Your task to perform on an android device: add a contact in the contacts app Image 0: 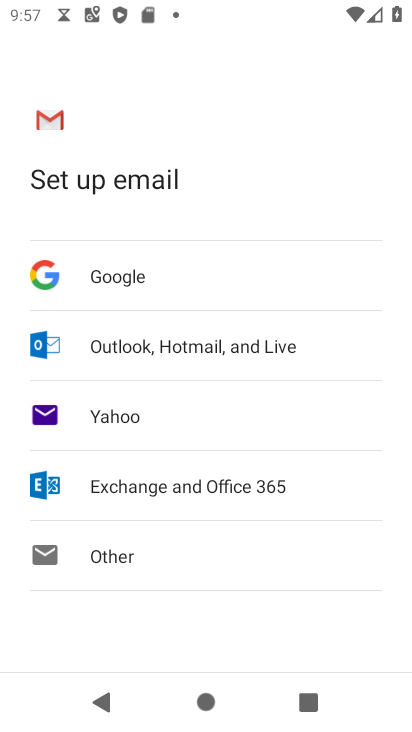
Step 0: press home button
Your task to perform on an android device: add a contact in the contacts app Image 1: 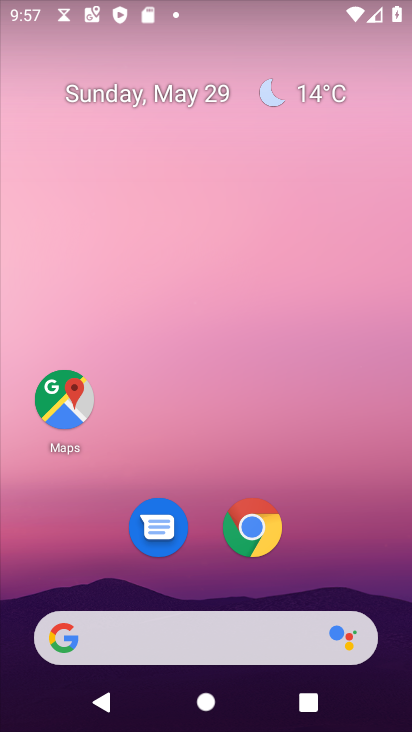
Step 1: drag from (119, 634) to (213, 276)
Your task to perform on an android device: add a contact in the contacts app Image 2: 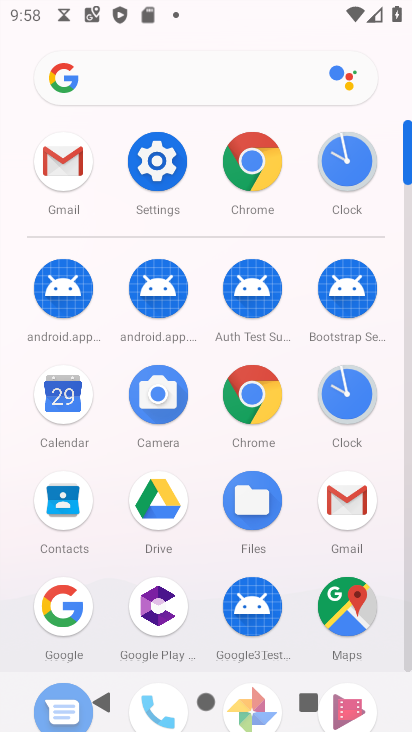
Step 2: click (59, 505)
Your task to perform on an android device: add a contact in the contacts app Image 3: 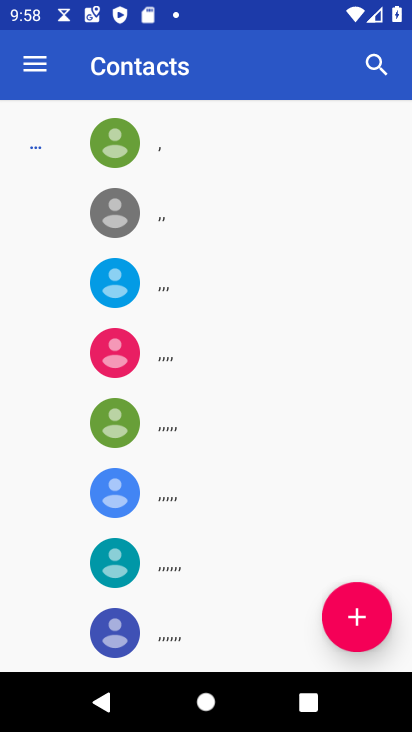
Step 3: click (360, 614)
Your task to perform on an android device: add a contact in the contacts app Image 4: 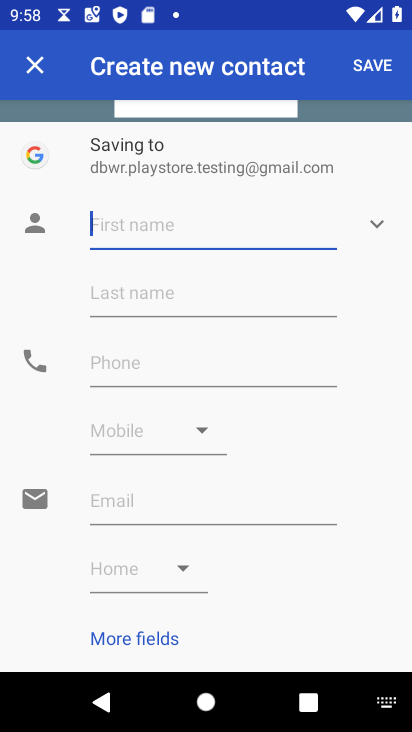
Step 4: click (104, 222)
Your task to perform on an android device: add a contact in the contacts app Image 5: 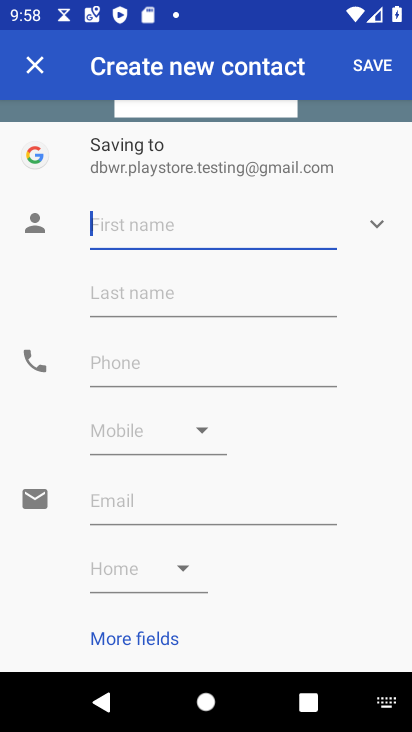
Step 5: type "strythghgjg"
Your task to perform on an android device: add a contact in the contacts app Image 6: 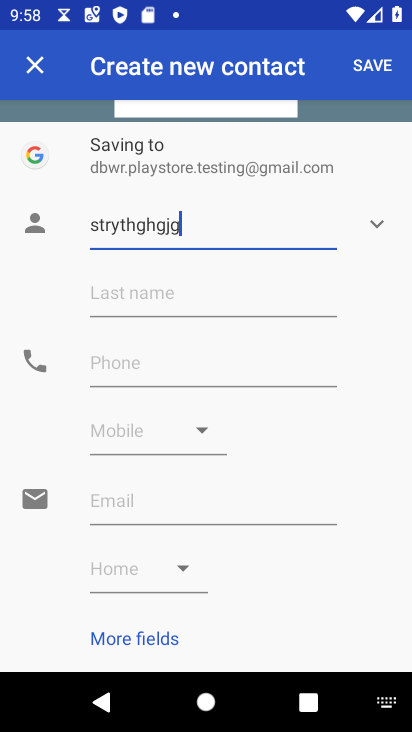
Step 6: click (130, 360)
Your task to perform on an android device: add a contact in the contacts app Image 7: 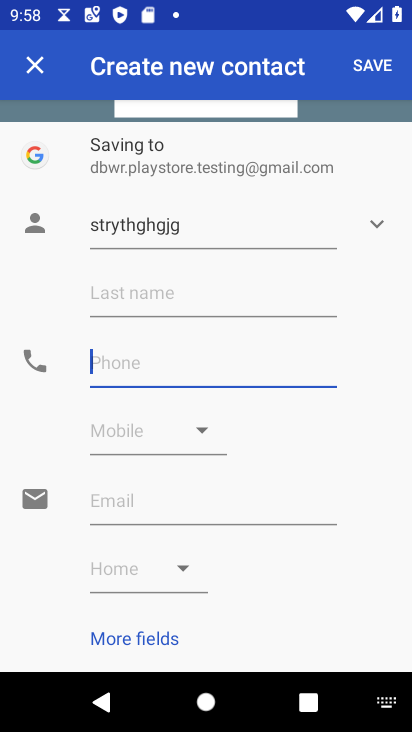
Step 7: type "987700"
Your task to perform on an android device: add a contact in the contacts app Image 8: 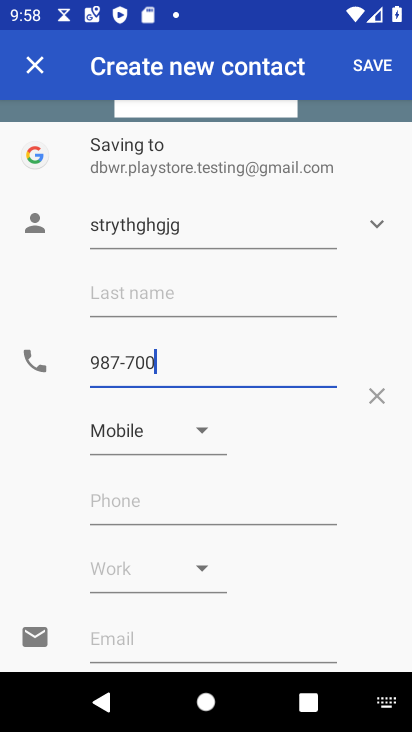
Step 8: click (372, 61)
Your task to perform on an android device: add a contact in the contacts app Image 9: 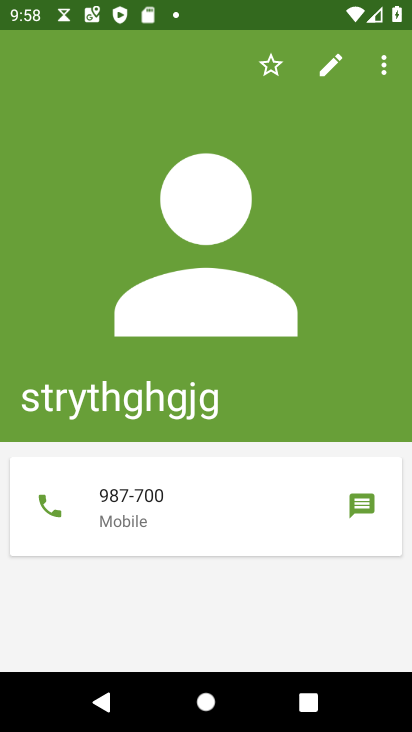
Step 9: task complete